Your task to perform on an android device: turn on bluetooth scan Image 0: 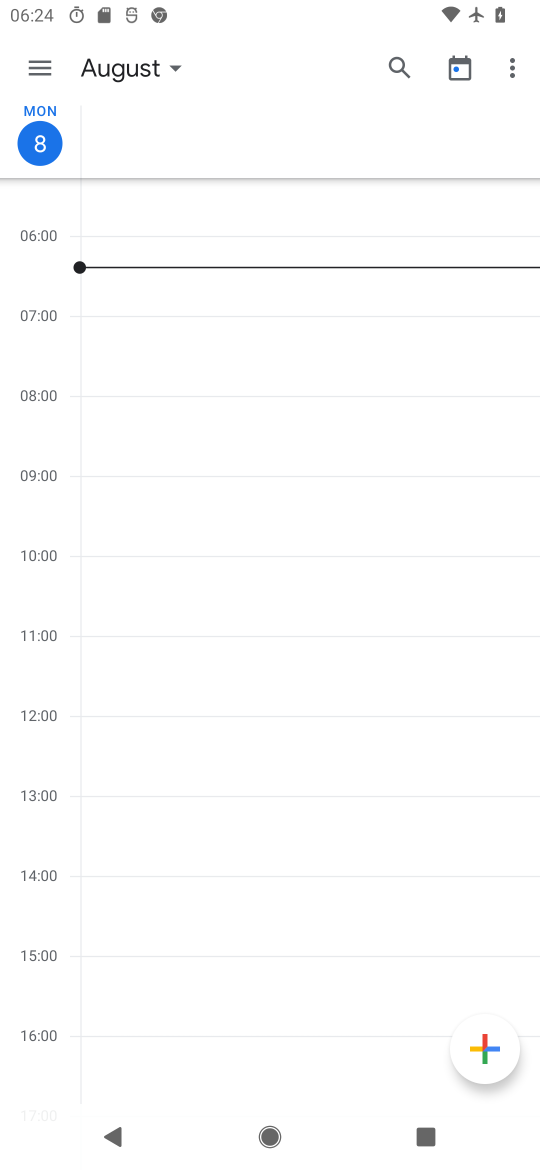
Step 0: press home button
Your task to perform on an android device: turn on bluetooth scan Image 1: 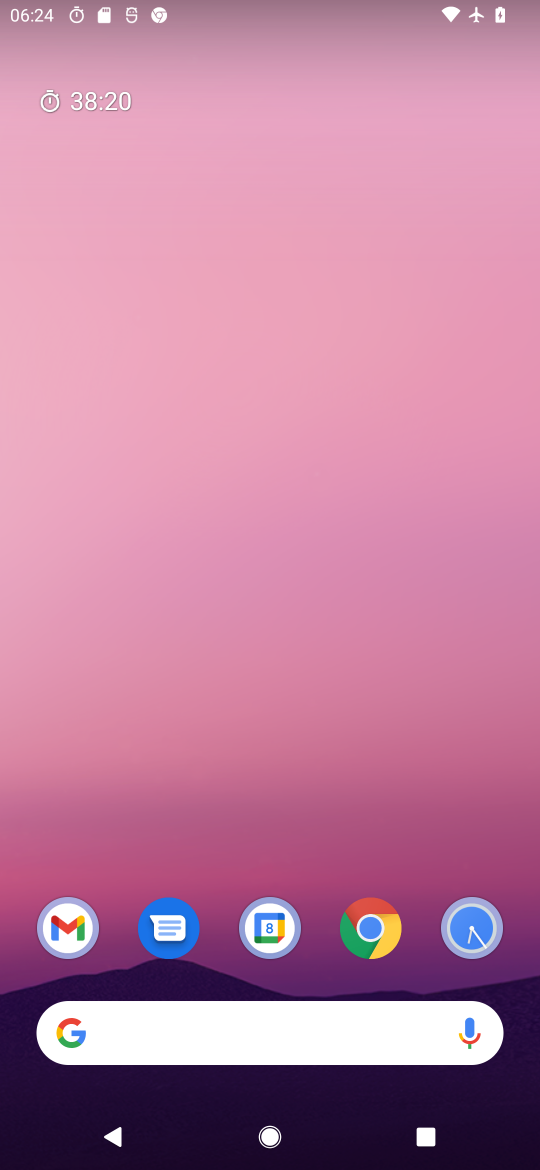
Step 1: drag from (229, 924) to (290, 6)
Your task to perform on an android device: turn on bluetooth scan Image 2: 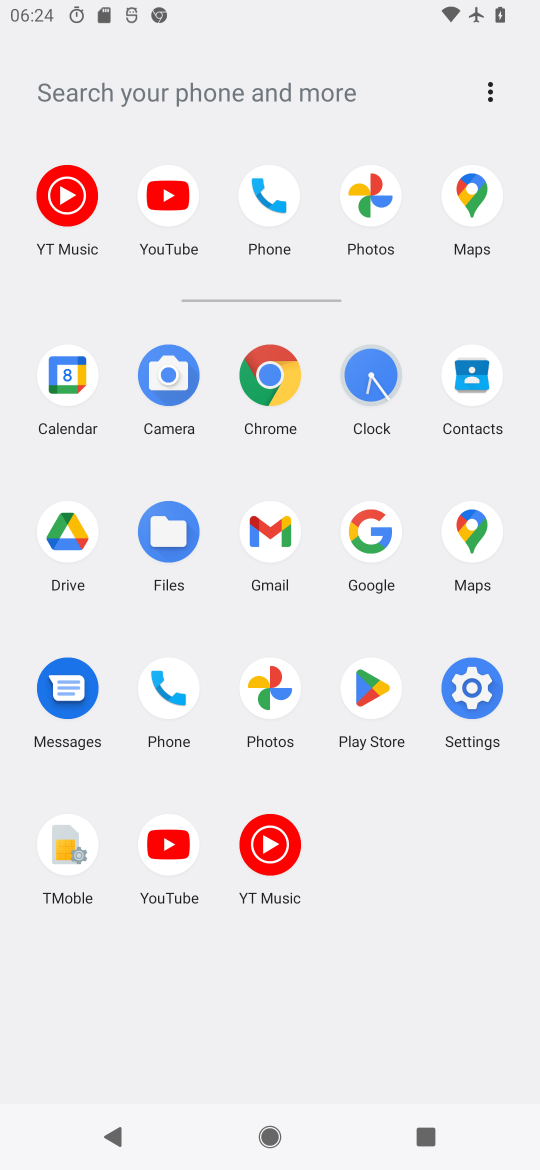
Step 2: click (486, 714)
Your task to perform on an android device: turn on bluetooth scan Image 3: 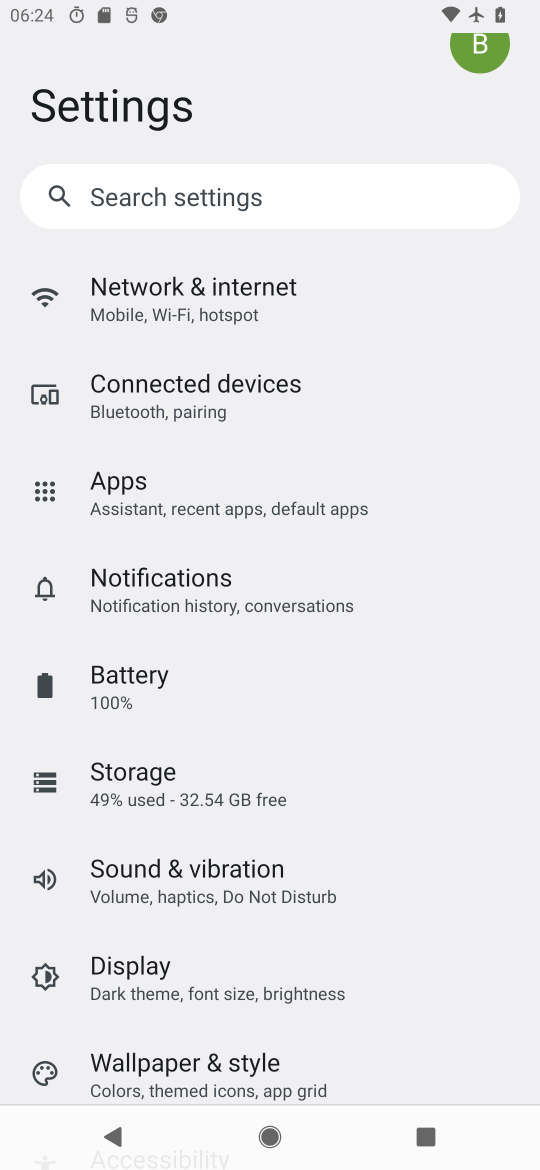
Step 3: drag from (209, 949) to (175, 184)
Your task to perform on an android device: turn on bluetooth scan Image 4: 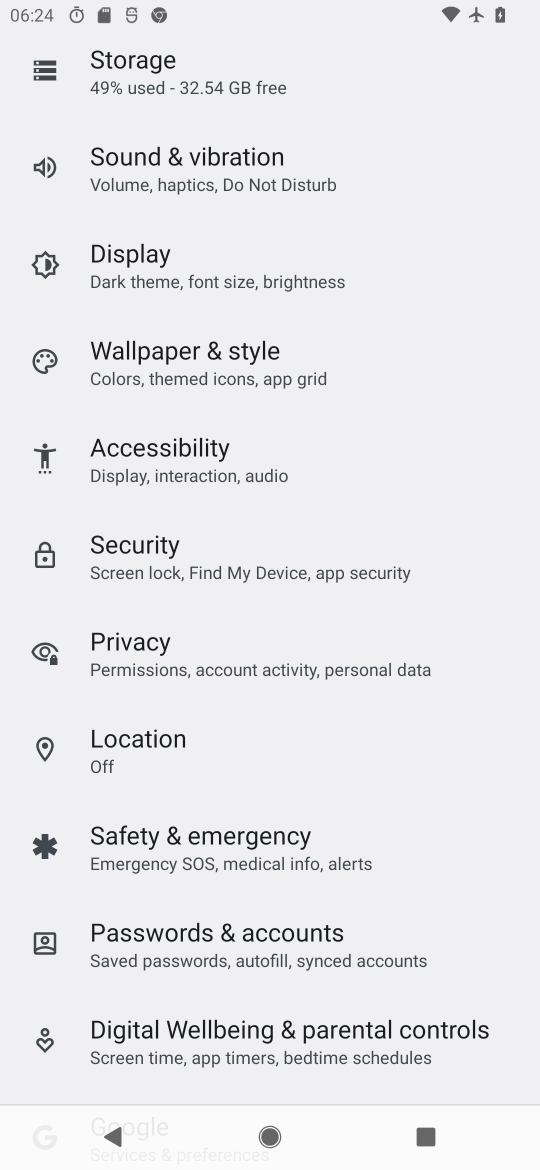
Step 4: click (174, 748)
Your task to perform on an android device: turn on bluetooth scan Image 5: 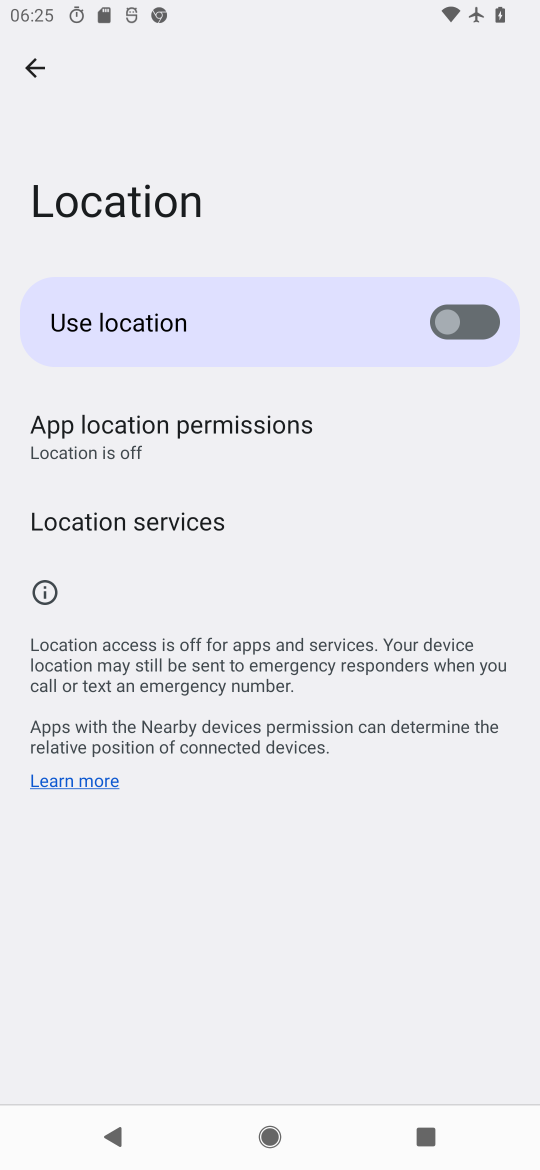
Step 5: click (137, 511)
Your task to perform on an android device: turn on bluetooth scan Image 6: 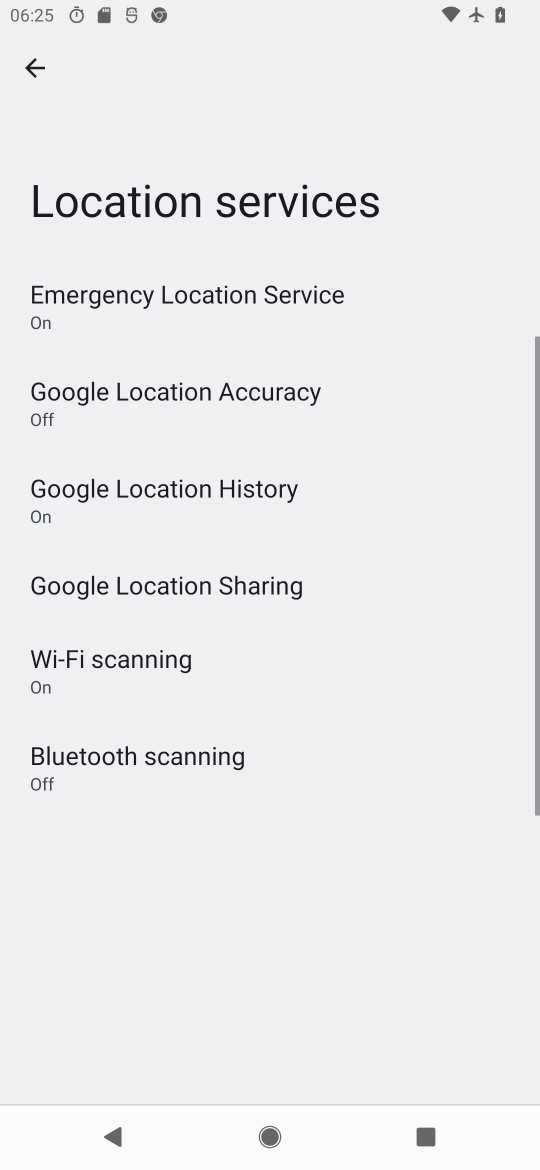
Step 6: click (192, 804)
Your task to perform on an android device: turn on bluetooth scan Image 7: 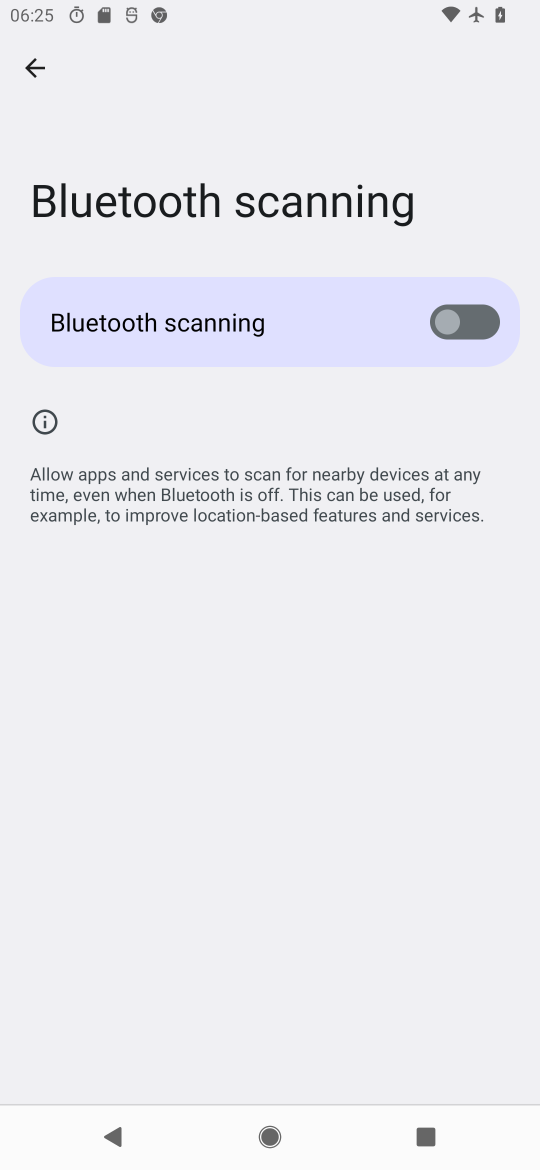
Step 7: click (499, 327)
Your task to perform on an android device: turn on bluetooth scan Image 8: 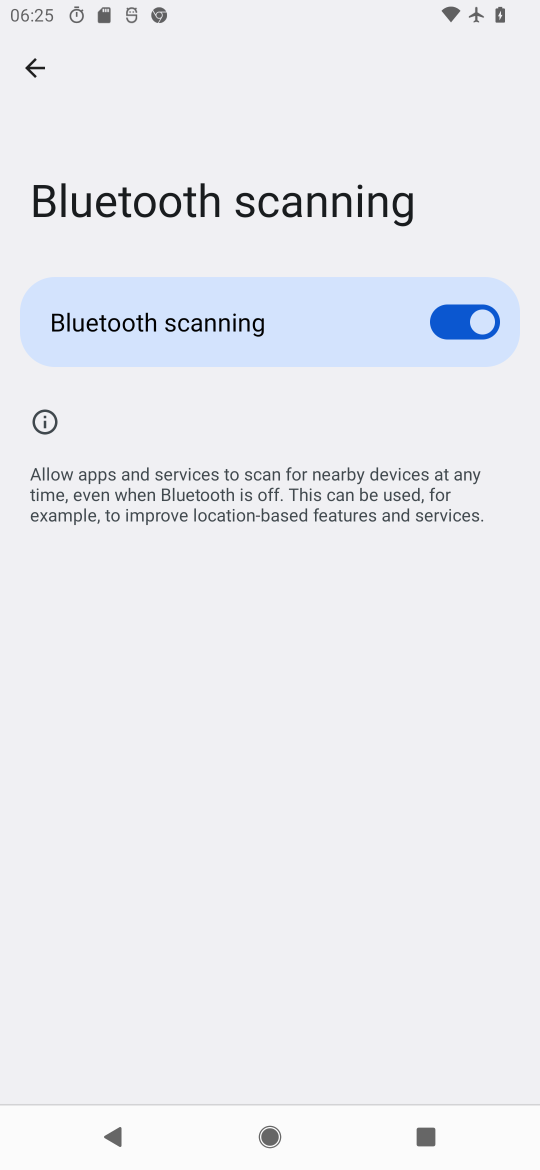
Step 8: task complete